Your task to perform on an android device: turn on wifi Image 0: 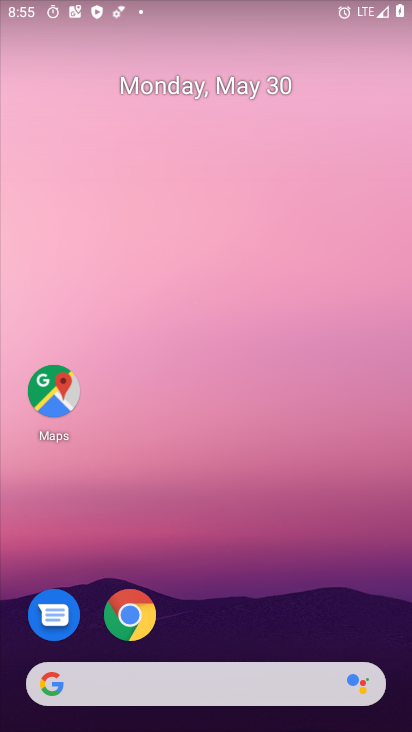
Step 0: drag from (301, 549) to (343, 56)
Your task to perform on an android device: turn on wifi Image 1: 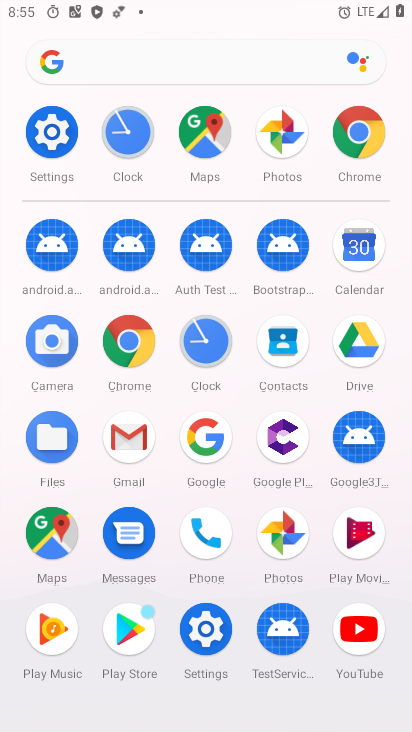
Step 1: click (47, 142)
Your task to perform on an android device: turn on wifi Image 2: 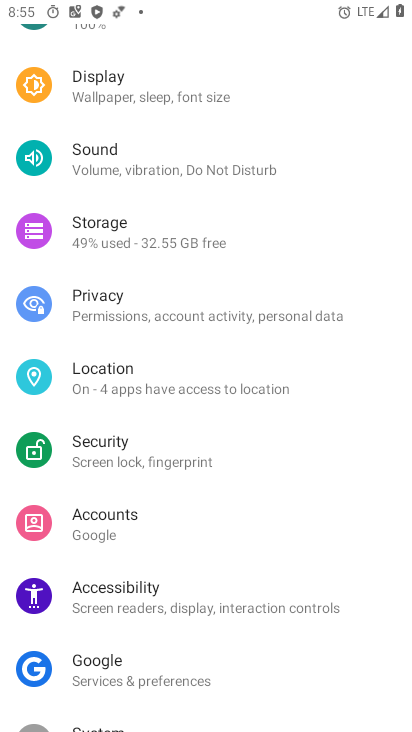
Step 2: drag from (173, 114) to (307, 633)
Your task to perform on an android device: turn on wifi Image 3: 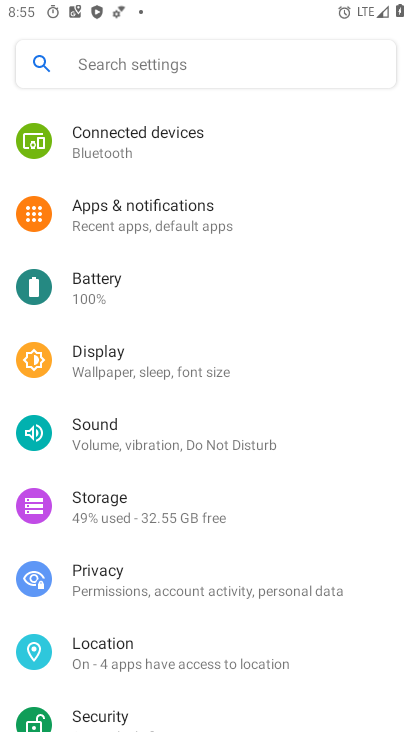
Step 3: drag from (217, 207) to (265, 615)
Your task to perform on an android device: turn on wifi Image 4: 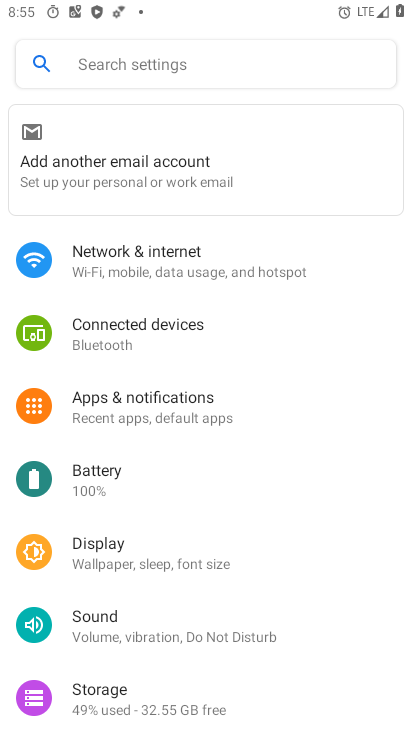
Step 4: click (161, 267)
Your task to perform on an android device: turn on wifi Image 5: 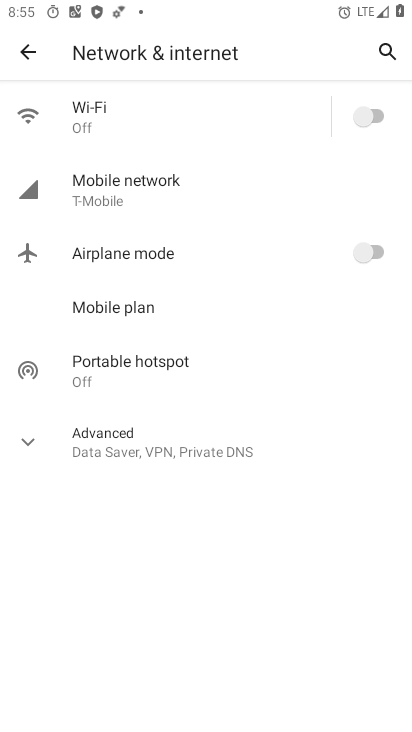
Step 5: click (374, 116)
Your task to perform on an android device: turn on wifi Image 6: 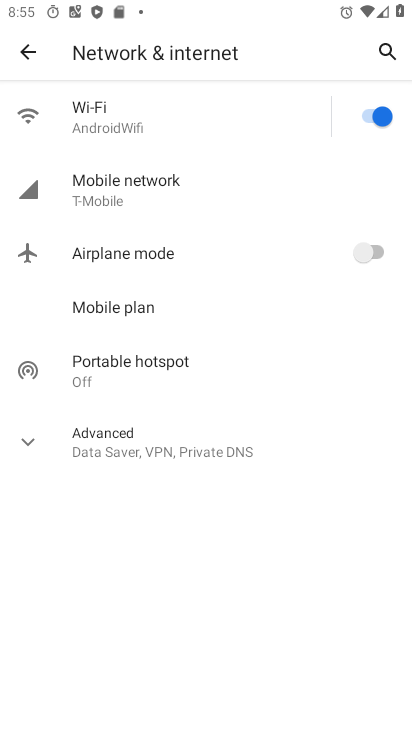
Step 6: task complete